Your task to perform on an android device: Set the phone to "Do not disturb". Image 0: 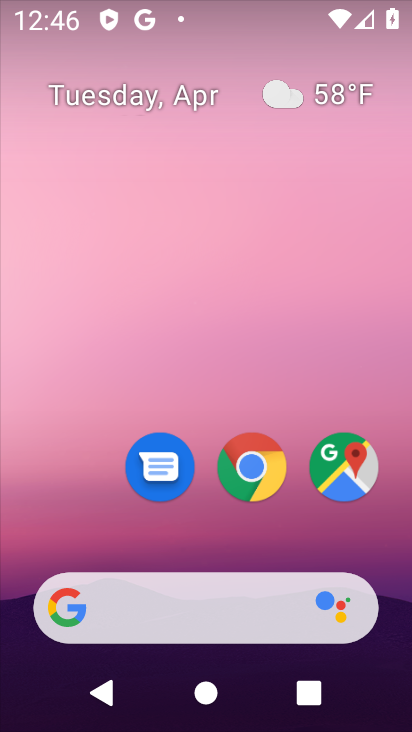
Step 0: drag from (297, 11) to (276, 709)
Your task to perform on an android device: Set the phone to "Do not disturb". Image 1: 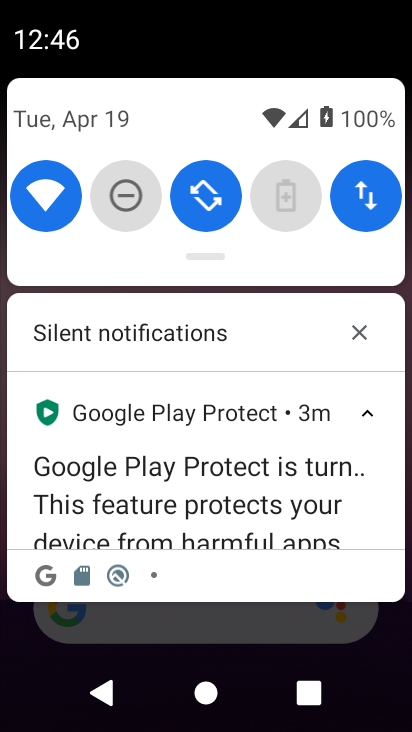
Step 1: click (122, 198)
Your task to perform on an android device: Set the phone to "Do not disturb". Image 2: 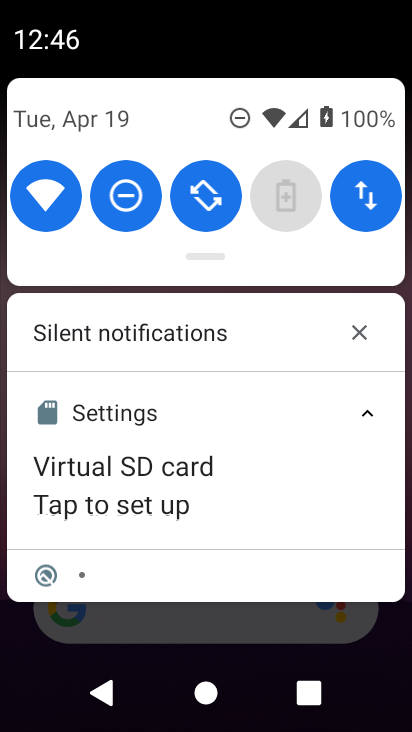
Step 2: task complete